Your task to perform on an android device: open a bookmark in the chrome app Image 0: 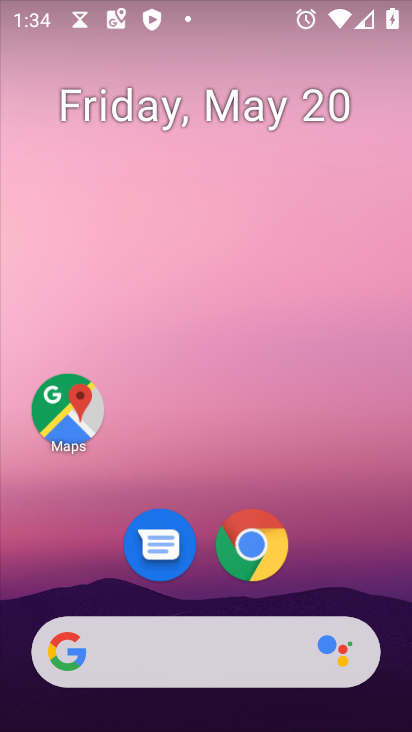
Step 0: click (240, 524)
Your task to perform on an android device: open a bookmark in the chrome app Image 1: 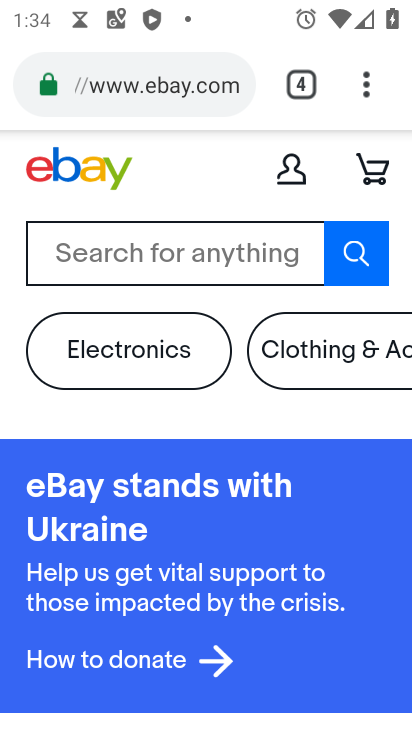
Step 1: click (378, 85)
Your task to perform on an android device: open a bookmark in the chrome app Image 2: 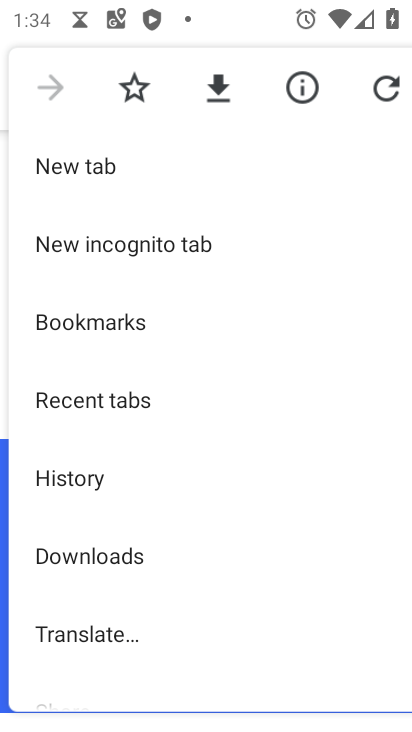
Step 2: click (117, 314)
Your task to perform on an android device: open a bookmark in the chrome app Image 3: 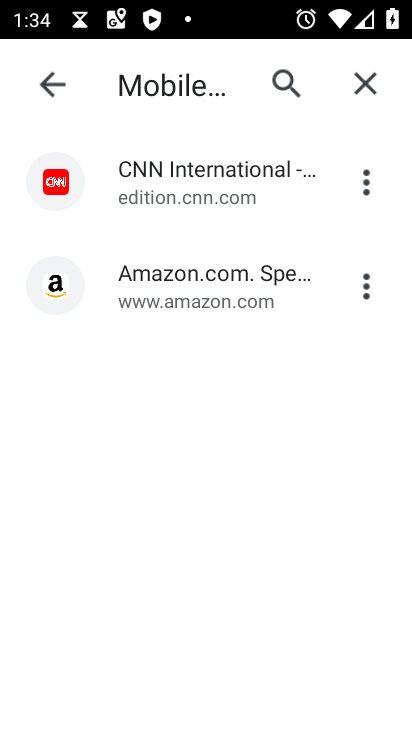
Step 3: click (213, 196)
Your task to perform on an android device: open a bookmark in the chrome app Image 4: 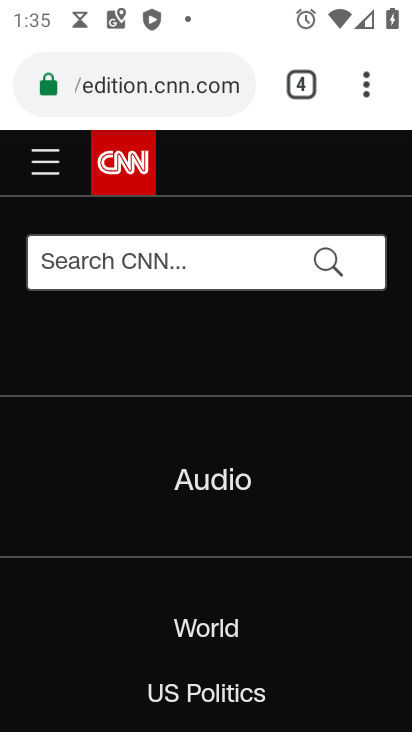
Step 4: task complete